Your task to perform on an android device: turn off smart reply in the gmail app Image 0: 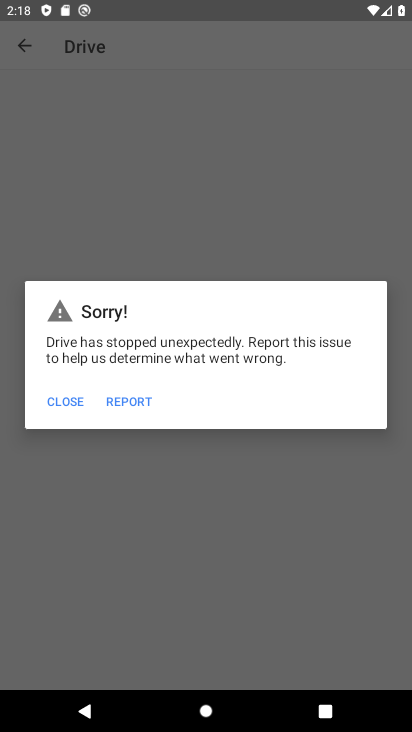
Step 0: press home button
Your task to perform on an android device: turn off smart reply in the gmail app Image 1: 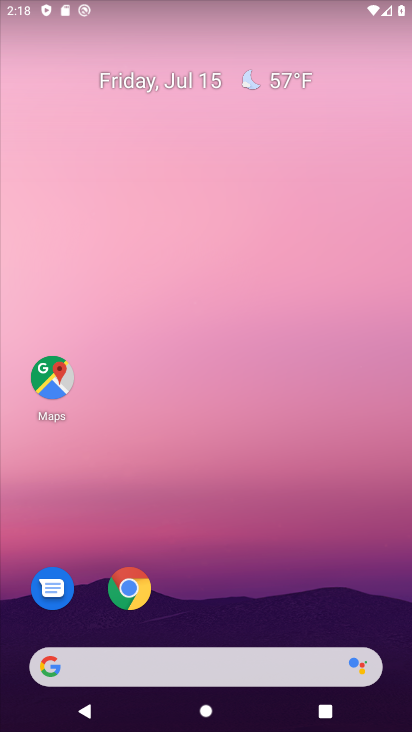
Step 1: drag from (247, 565) to (199, 61)
Your task to perform on an android device: turn off smart reply in the gmail app Image 2: 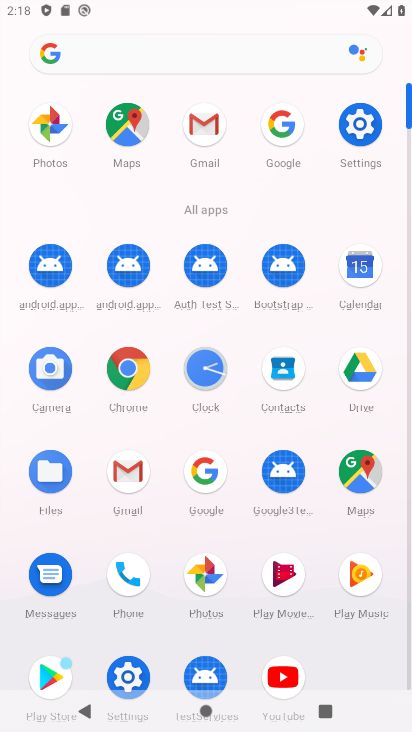
Step 2: click (202, 128)
Your task to perform on an android device: turn off smart reply in the gmail app Image 3: 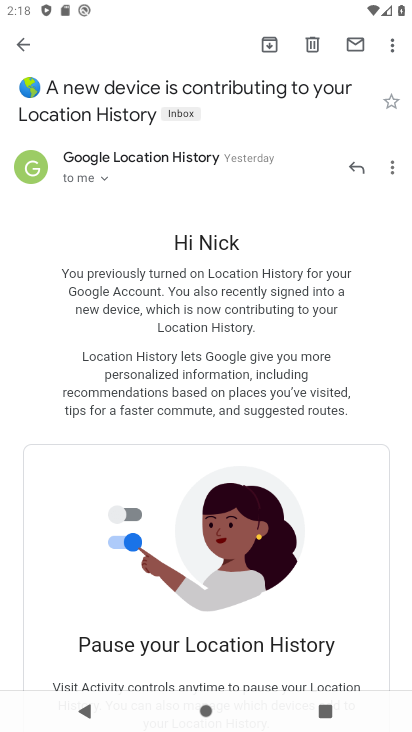
Step 3: click (25, 47)
Your task to perform on an android device: turn off smart reply in the gmail app Image 4: 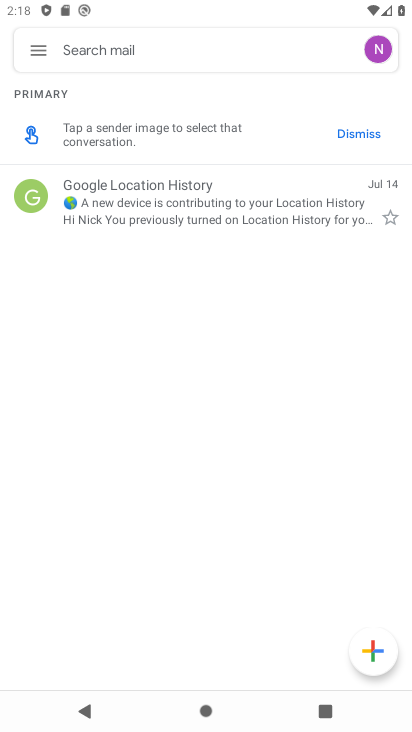
Step 4: click (31, 49)
Your task to perform on an android device: turn off smart reply in the gmail app Image 5: 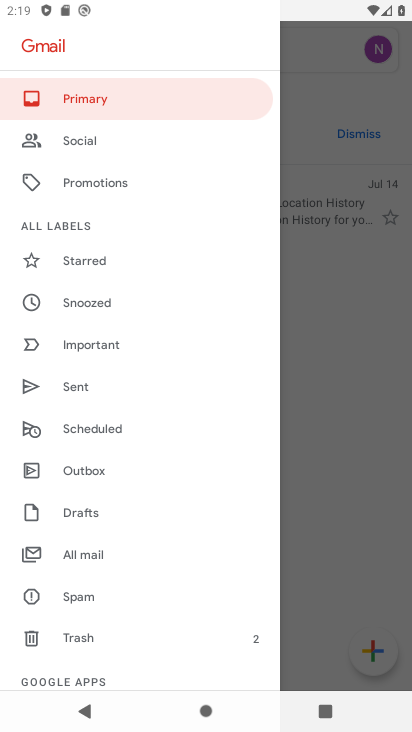
Step 5: drag from (197, 614) to (179, 257)
Your task to perform on an android device: turn off smart reply in the gmail app Image 6: 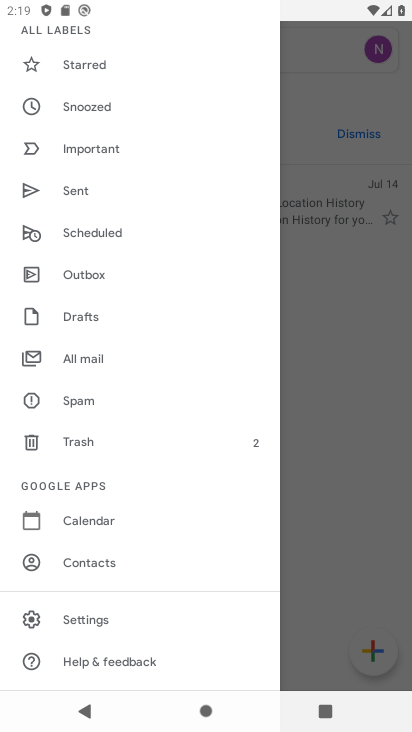
Step 6: click (87, 615)
Your task to perform on an android device: turn off smart reply in the gmail app Image 7: 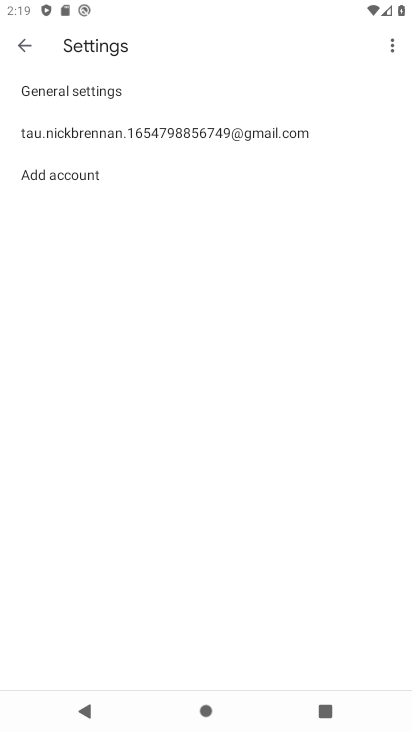
Step 7: click (125, 133)
Your task to perform on an android device: turn off smart reply in the gmail app Image 8: 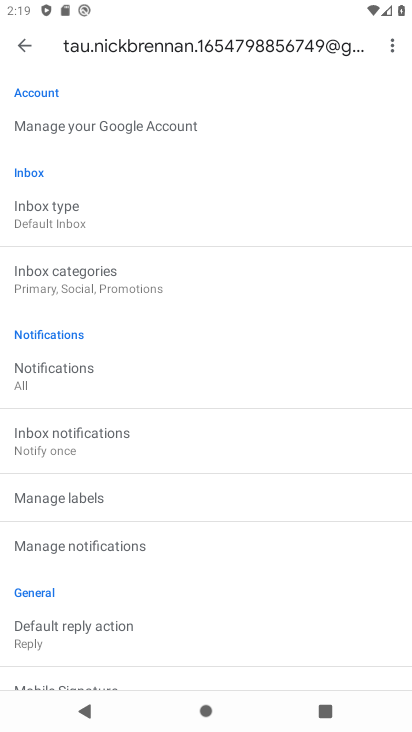
Step 8: drag from (182, 640) to (180, 315)
Your task to perform on an android device: turn off smart reply in the gmail app Image 9: 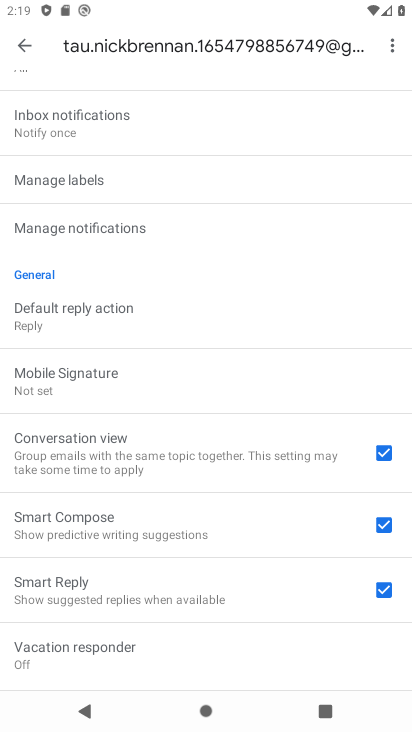
Step 9: click (381, 588)
Your task to perform on an android device: turn off smart reply in the gmail app Image 10: 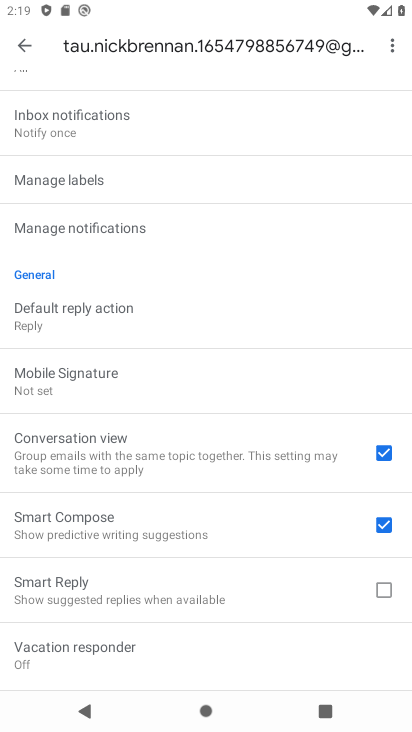
Step 10: task complete